Your task to perform on an android device: Show me the alarms in the clock app Image 0: 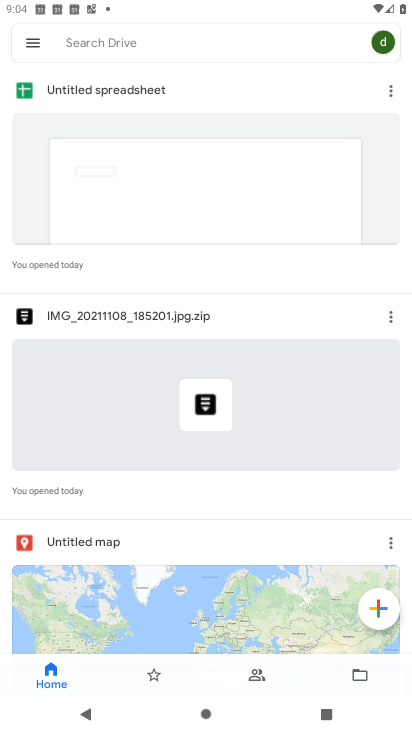
Step 0: press home button
Your task to perform on an android device: Show me the alarms in the clock app Image 1: 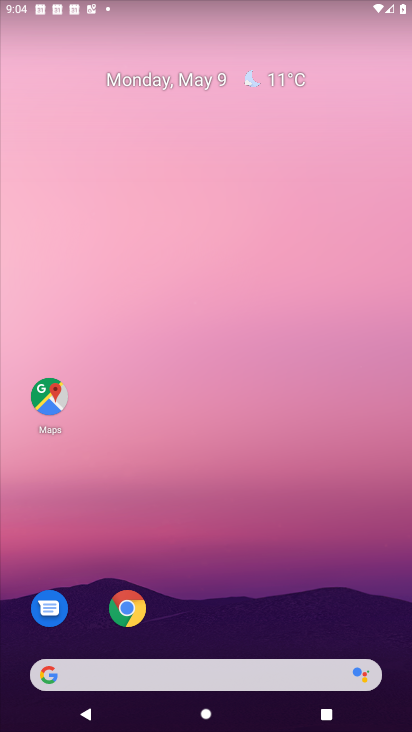
Step 1: drag from (181, 641) to (215, 161)
Your task to perform on an android device: Show me the alarms in the clock app Image 2: 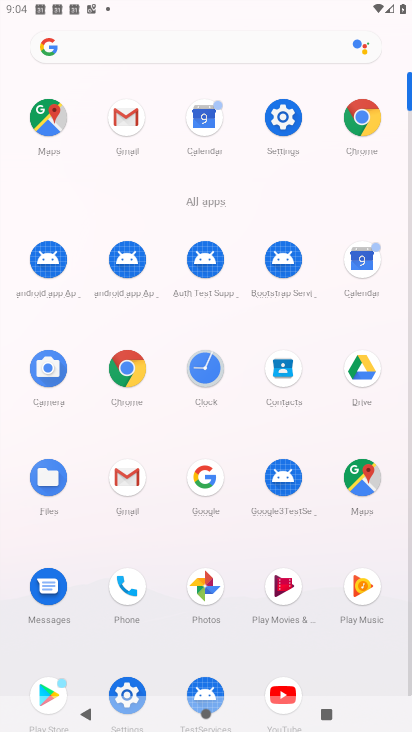
Step 2: click (203, 375)
Your task to perform on an android device: Show me the alarms in the clock app Image 3: 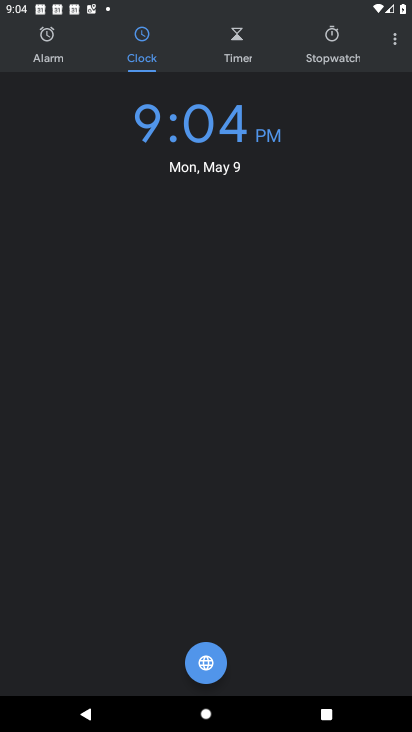
Step 3: click (57, 49)
Your task to perform on an android device: Show me the alarms in the clock app Image 4: 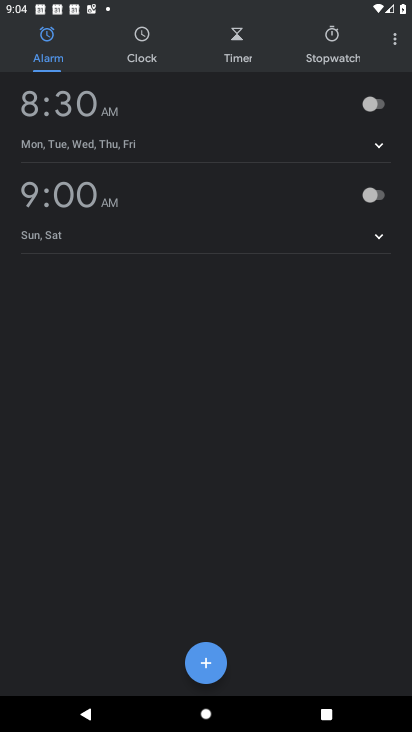
Step 4: task complete